Your task to perform on an android device: open chrome and create a bookmark for the current page Image 0: 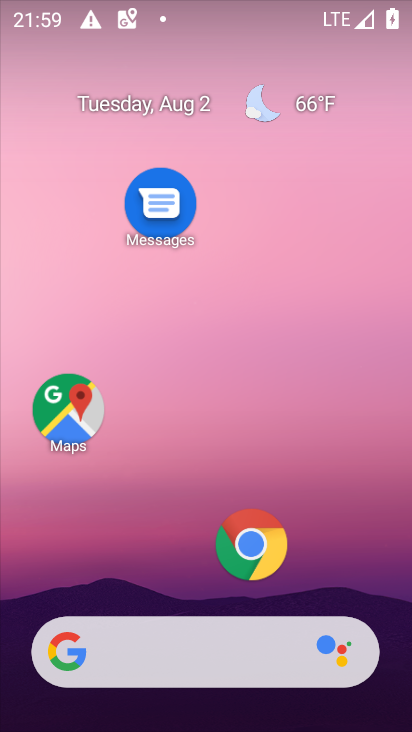
Step 0: click (242, 539)
Your task to perform on an android device: open chrome and create a bookmark for the current page Image 1: 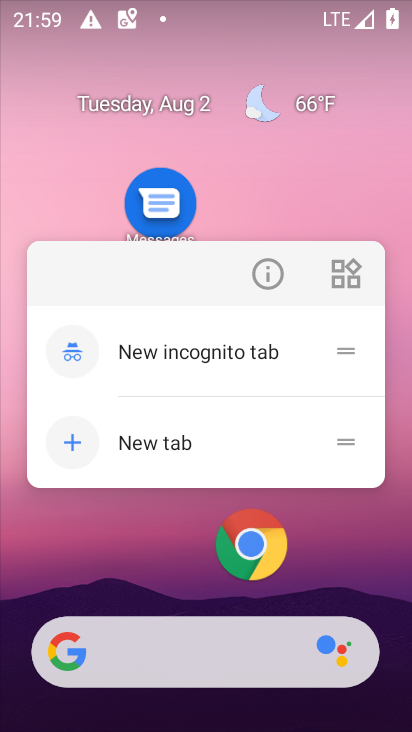
Step 1: click (241, 542)
Your task to perform on an android device: open chrome and create a bookmark for the current page Image 2: 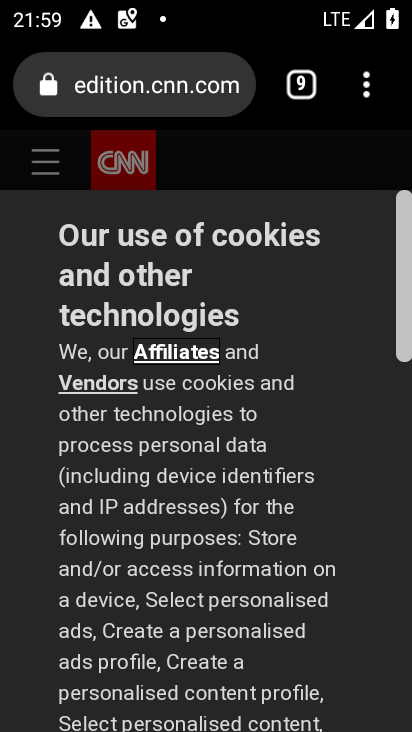
Step 2: click (365, 82)
Your task to perform on an android device: open chrome and create a bookmark for the current page Image 3: 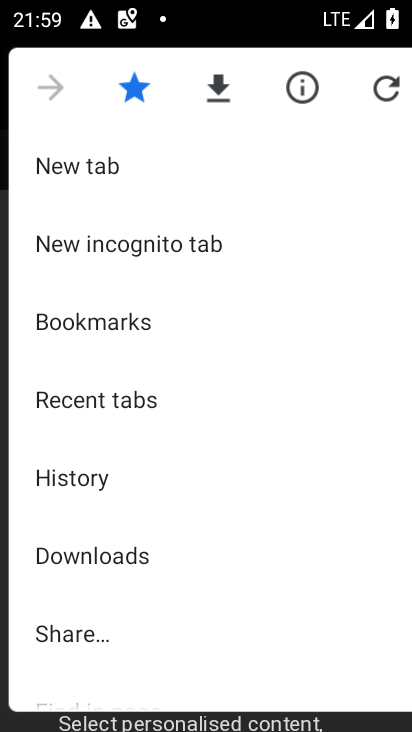
Step 3: task complete